Your task to perform on an android device: What is the news today? Image 0: 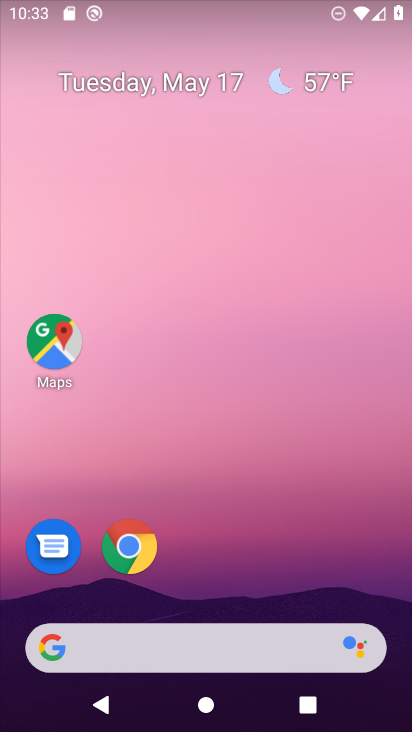
Step 0: click (115, 633)
Your task to perform on an android device: What is the news today? Image 1: 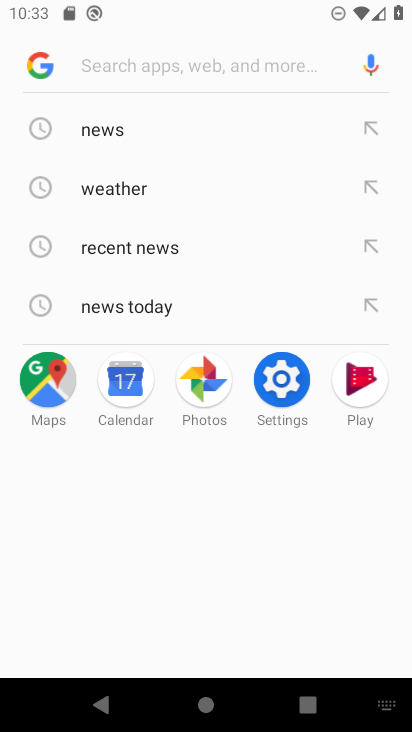
Step 1: click (113, 309)
Your task to perform on an android device: What is the news today? Image 2: 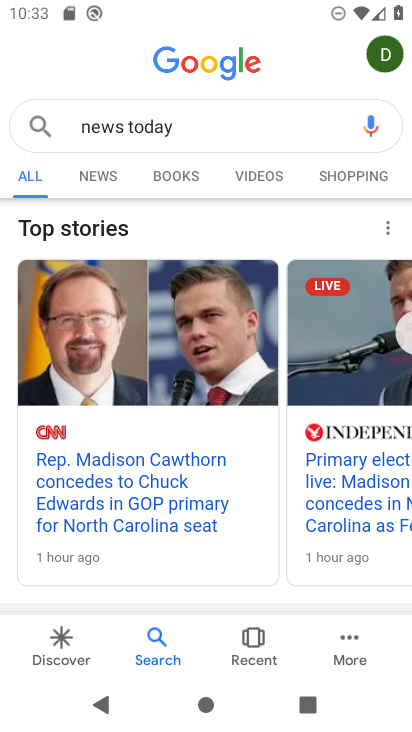
Step 2: click (183, 422)
Your task to perform on an android device: What is the news today? Image 3: 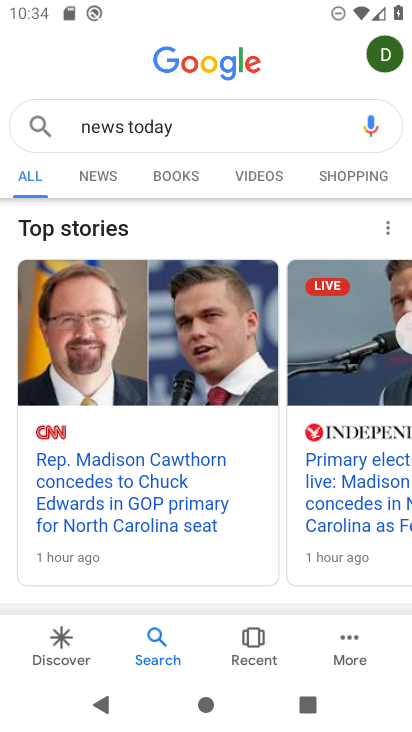
Step 3: click (122, 382)
Your task to perform on an android device: What is the news today? Image 4: 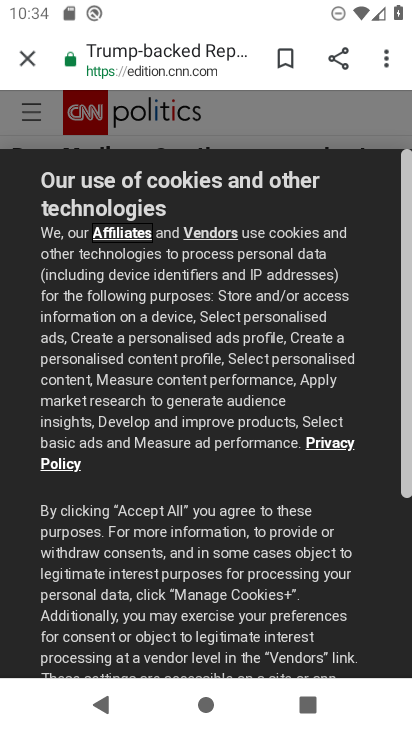
Step 4: task complete